Your task to perform on an android device: change the upload size in google photos Image 0: 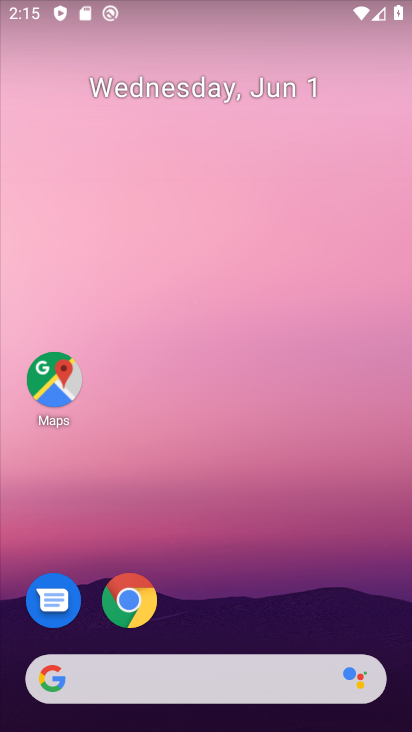
Step 0: drag from (265, 721) to (215, 134)
Your task to perform on an android device: change the upload size in google photos Image 1: 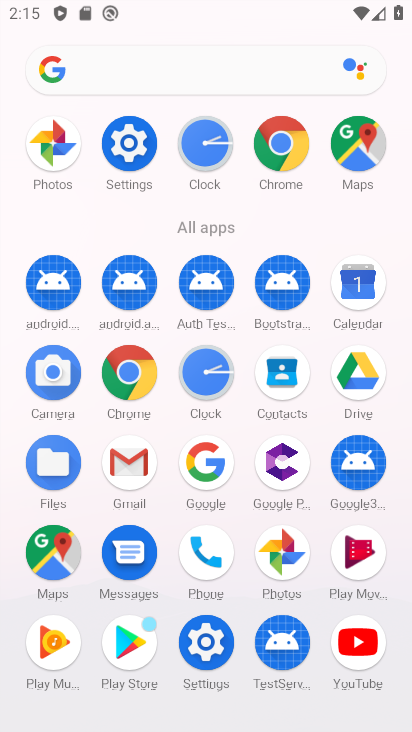
Step 1: click (286, 540)
Your task to perform on an android device: change the upload size in google photos Image 2: 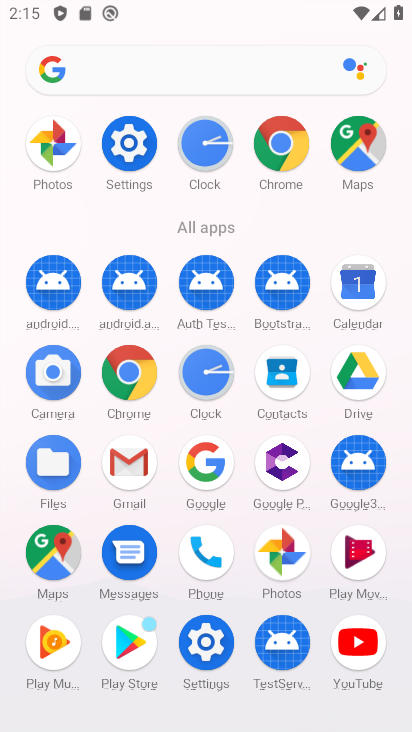
Step 2: click (284, 543)
Your task to perform on an android device: change the upload size in google photos Image 3: 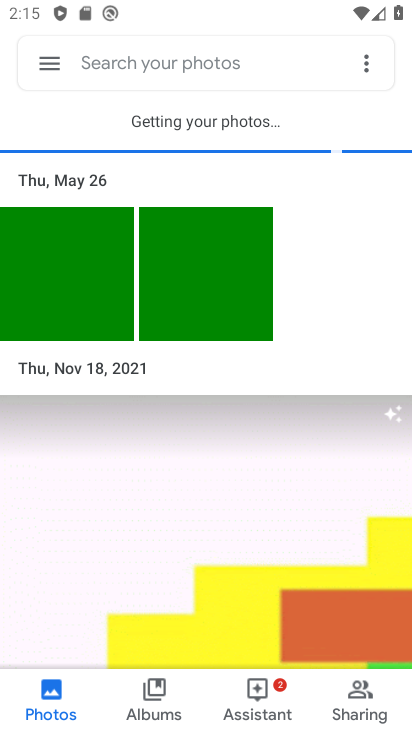
Step 3: drag from (245, 458) to (149, 276)
Your task to perform on an android device: change the upload size in google photos Image 4: 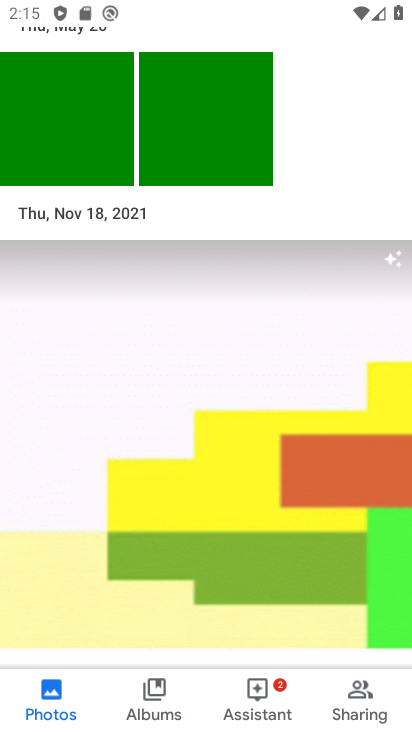
Step 4: drag from (97, 238) to (117, 694)
Your task to perform on an android device: change the upload size in google photos Image 5: 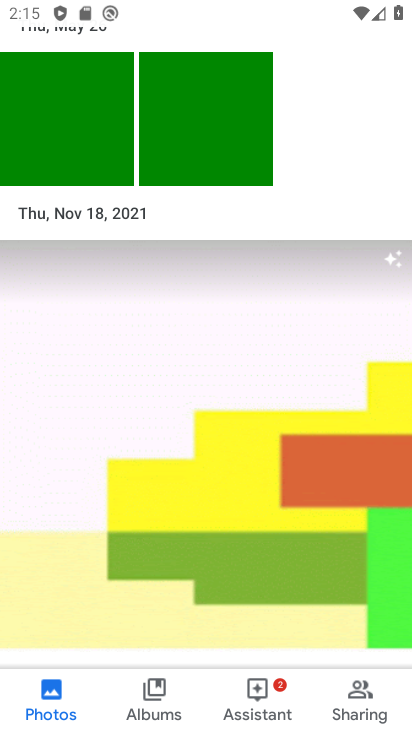
Step 5: drag from (108, 222) to (208, 696)
Your task to perform on an android device: change the upload size in google photos Image 6: 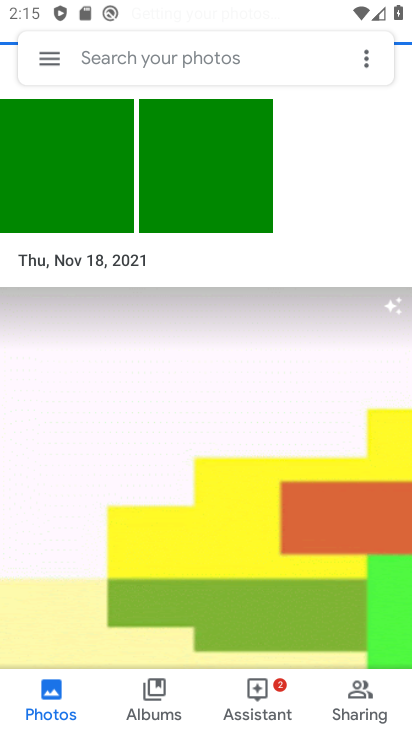
Step 6: drag from (145, 398) to (230, 641)
Your task to perform on an android device: change the upload size in google photos Image 7: 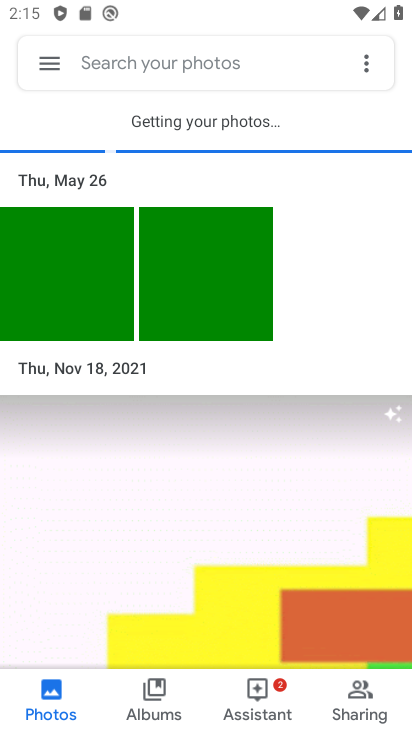
Step 7: drag from (242, 282) to (256, 459)
Your task to perform on an android device: change the upload size in google photos Image 8: 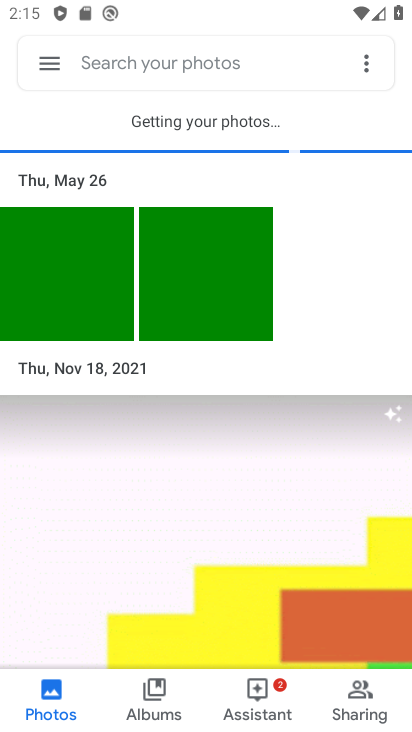
Step 8: drag from (159, 282) to (150, 485)
Your task to perform on an android device: change the upload size in google photos Image 9: 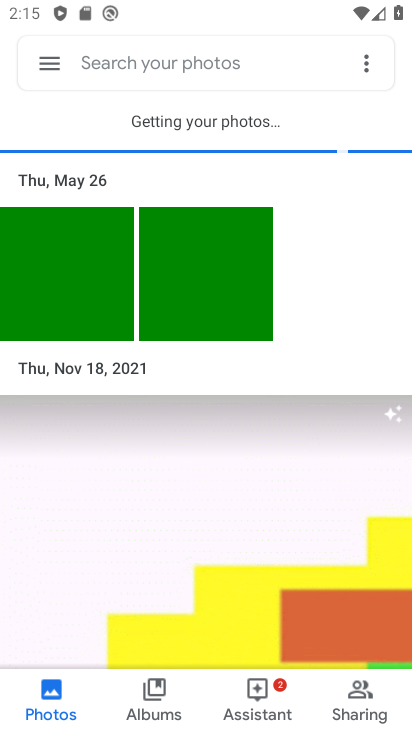
Step 9: click (49, 67)
Your task to perform on an android device: change the upload size in google photos Image 10: 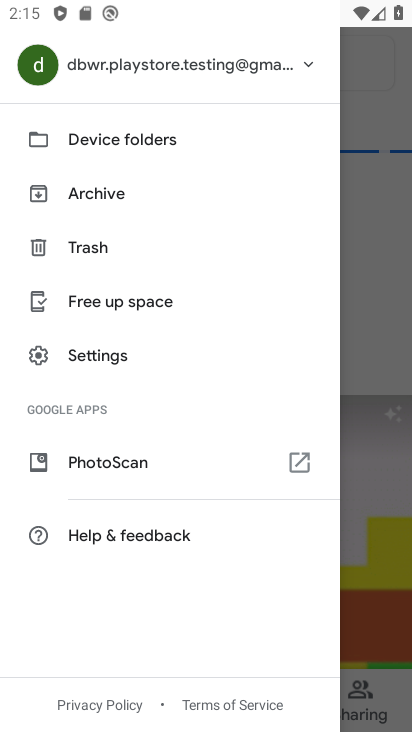
Step 10: click (94, 358)
Your task to perform on an android device: change the upload size in google photos Image 11: 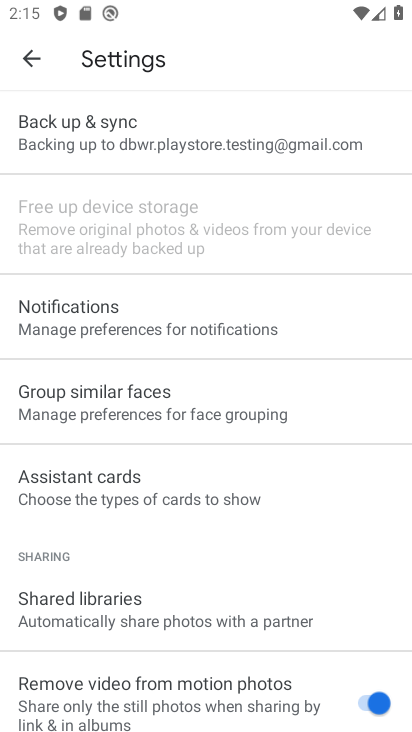
Step 11: click (57, 123)
Your task to perform on an android device: change the upload size in google photos Image 12: 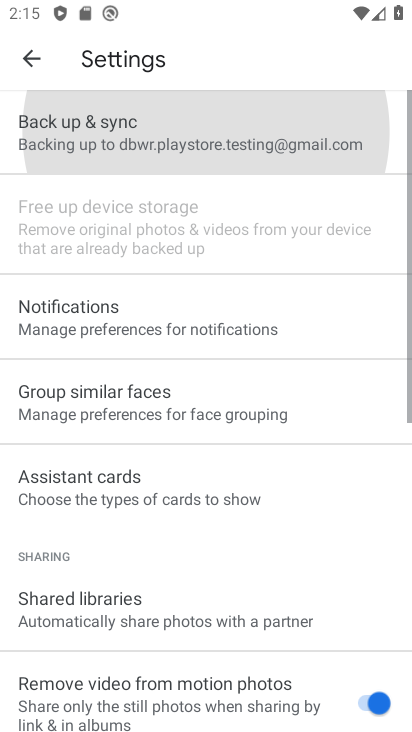
Step 12: click (58, 122)
Your task to perform on an android device: change the upload size in google photos Image 13: 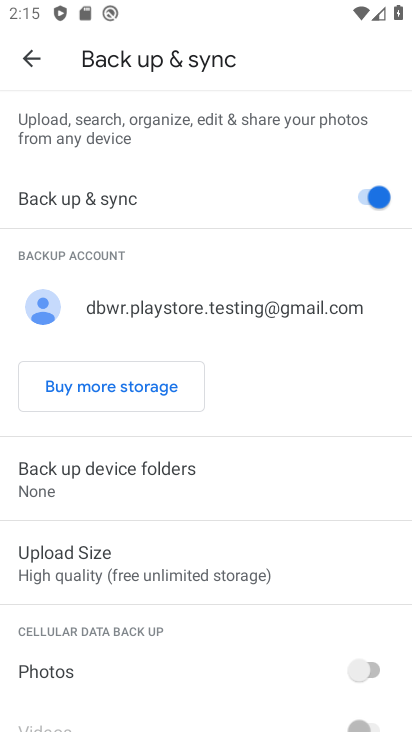
Step 13: click (69, 557)
Your task to perform on an android device: change the upload size in google photos Image 14: 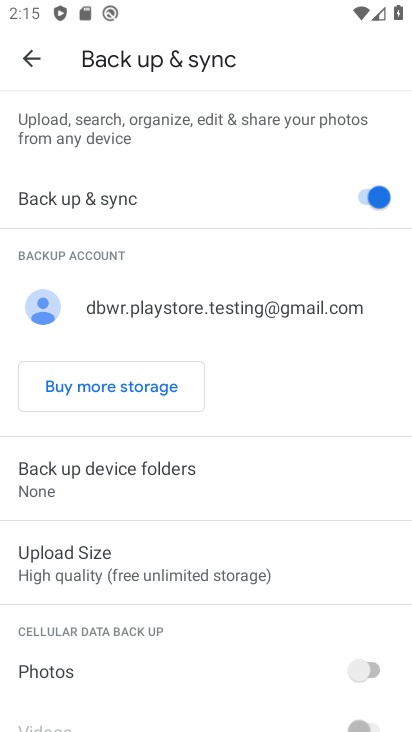
Step 14: click (70, 552)
Your task to perform on an android device: change the upload size in google photos Image 15: 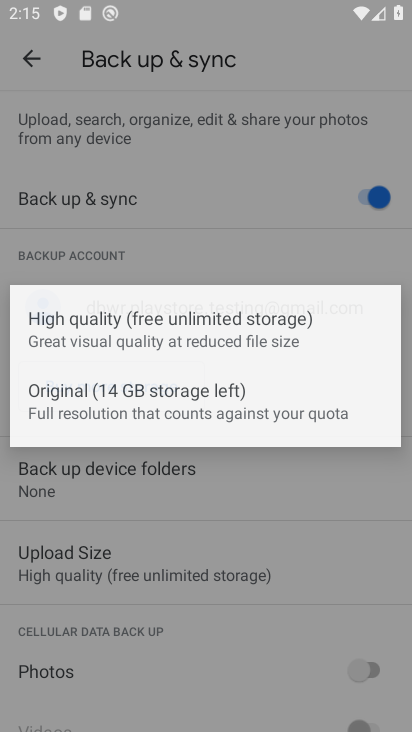
Step 15: click (73, 552)
Your task to perform on an android device: change the upload size in google photos Image 16: 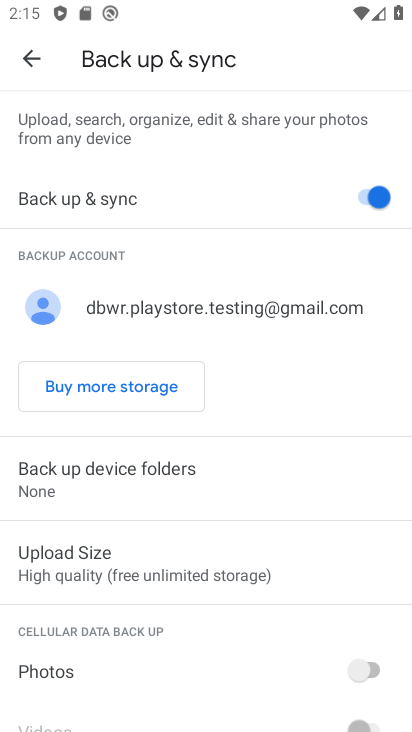
Step 16: click (72, 559)
Your task to perform on an android device: change the upload size in google photos Image 17: 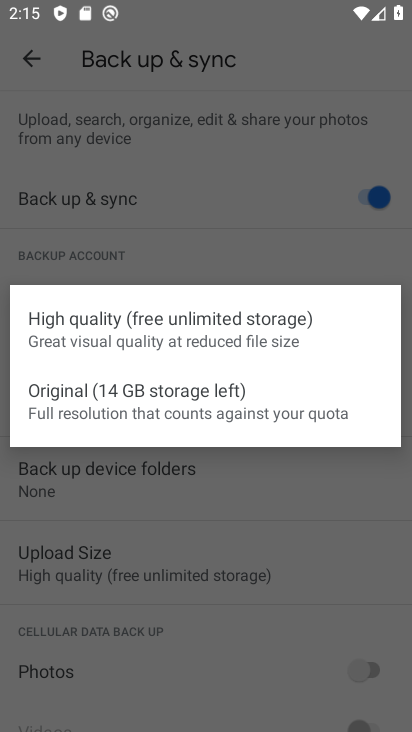
Step 17: click (72, 394)
Your task to perform on an android device: change the upload size in google photos Image 18: 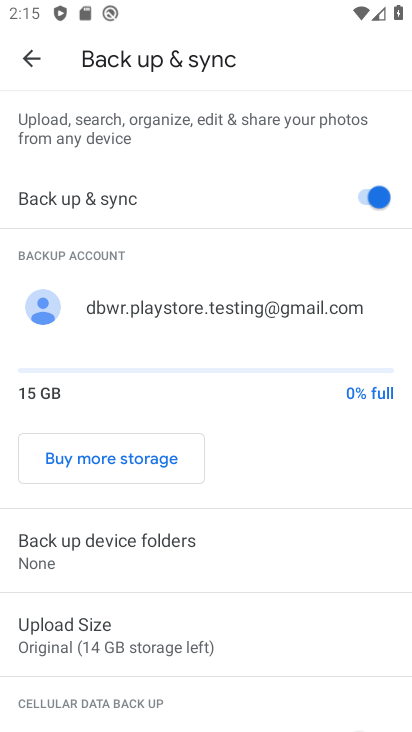
Step 18: task complete